Your task to perform on an android device: Open the web browser Image 0: 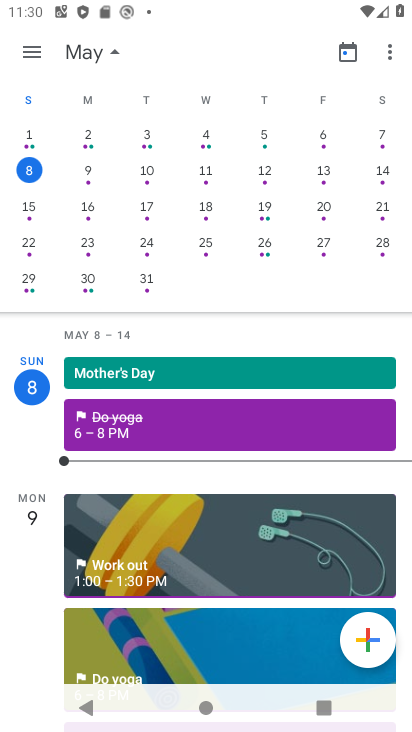
Step 0: press home button
Your task to perform on an android device: Open the web browser Image 1: 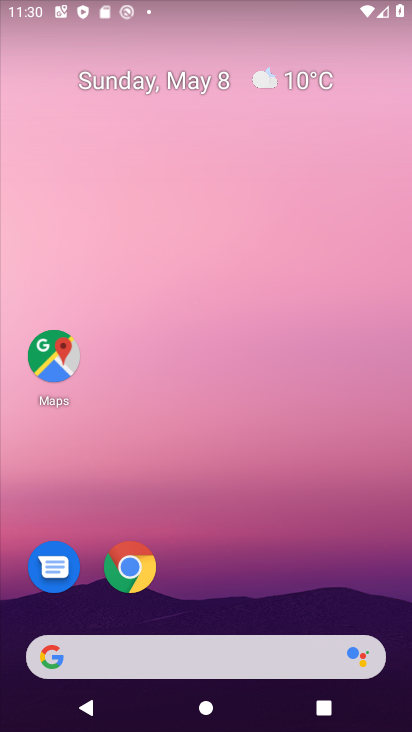
Step 1: click (139, 567)
Your task to perform on an android device: Open the web browser Image 2: 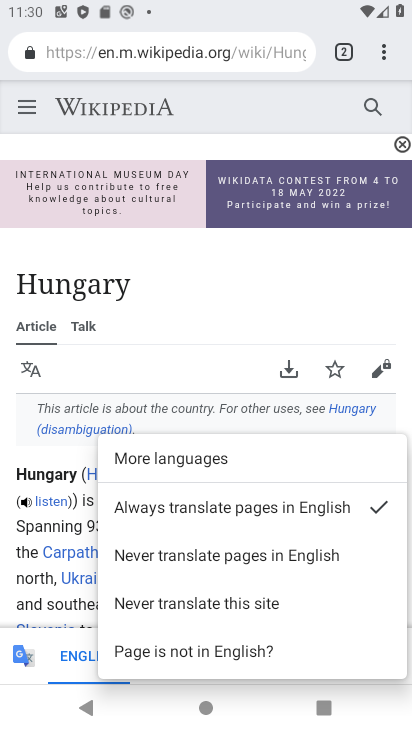
Step 2: click (229, 316)
Your task to perform on an android device: Open the web browser Image 3: 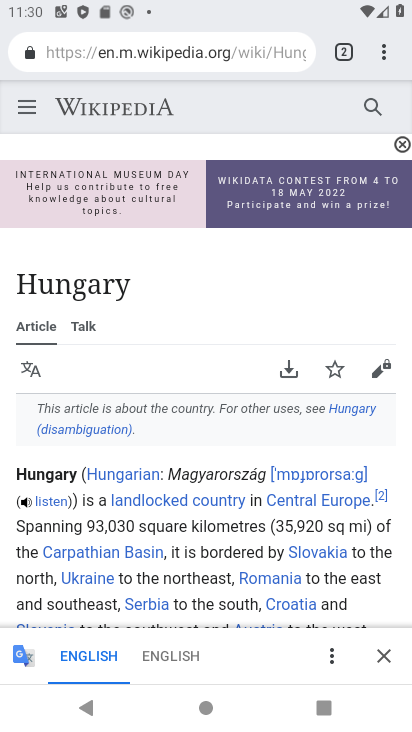
Step 3: click (229, 316)
Your task to perform on an android device: Open the web browser Image 4: 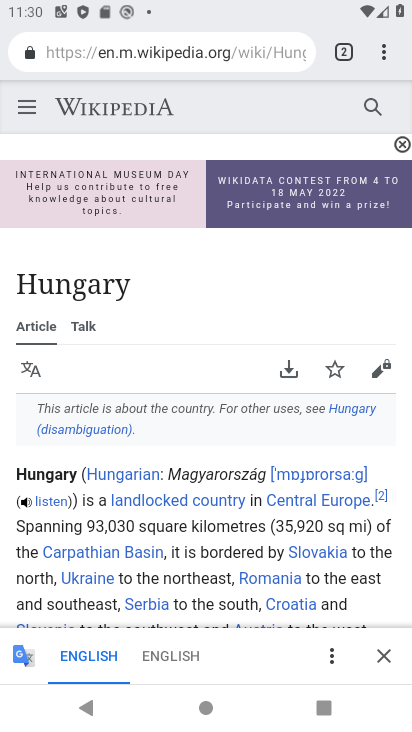
Step 4: task complete